Your task to perform on an android device: open wifi settings Image 0: 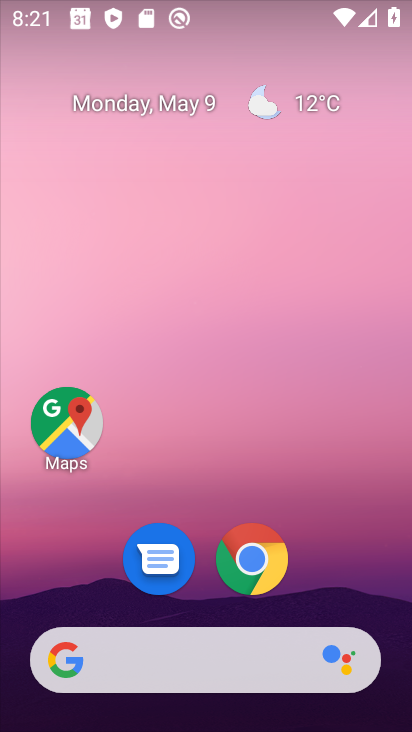
Step 0: drag from (171, 11) to (225, 578)
Your task to perform on an android device: open wifi settings Image 1: 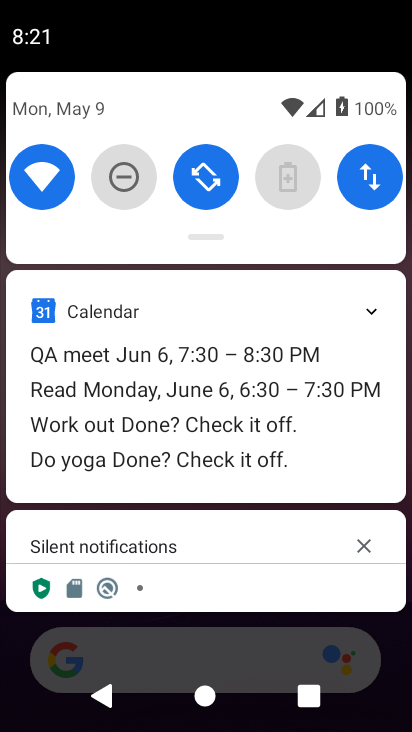
Step 1: click (54, 179)
Your task to perform on an android device: open wifi settings Image 2: 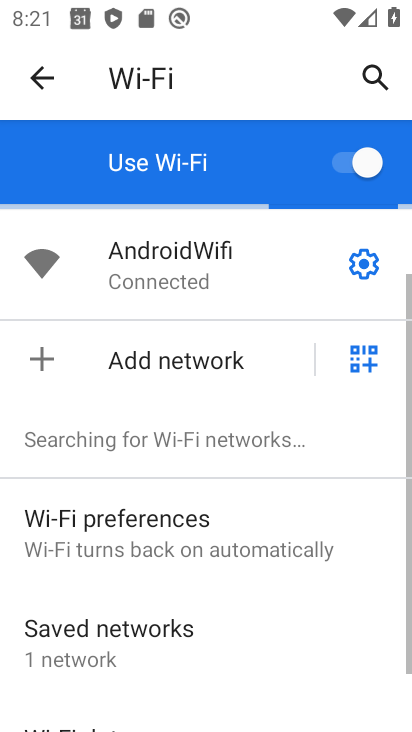
Step 2: task complete